Your task to perform on an android device: Show me popular games on the Play Store Image 0: 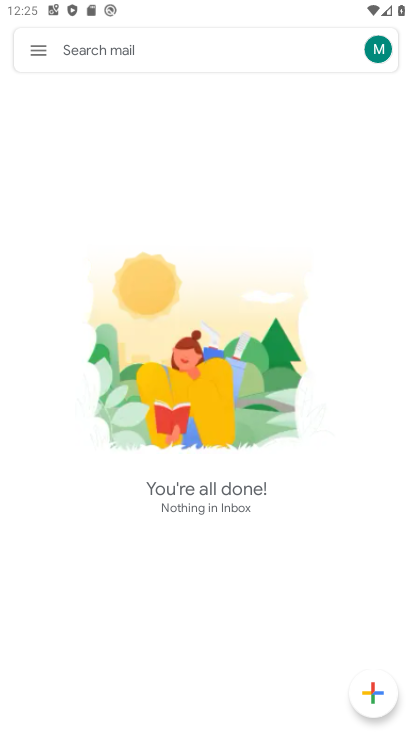
Step 0: press home button
Your task to perform on an android device: Show me popular games on the Play Store Image 1: 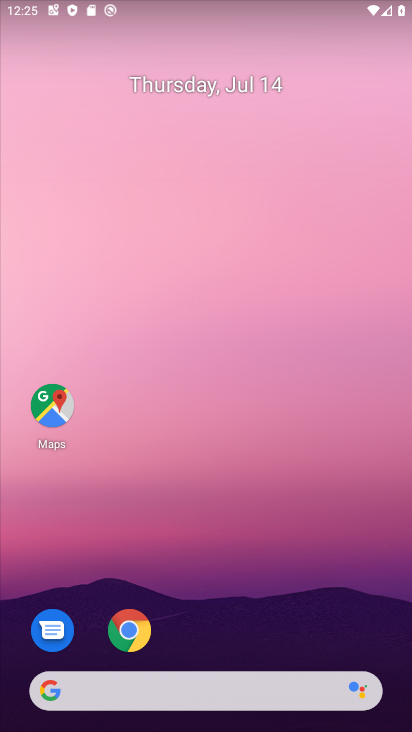
Step 1: drag from (181, 682) to (215, 180)
Your task to perform on an android device: Show me popular games on the Play Store Image 2: 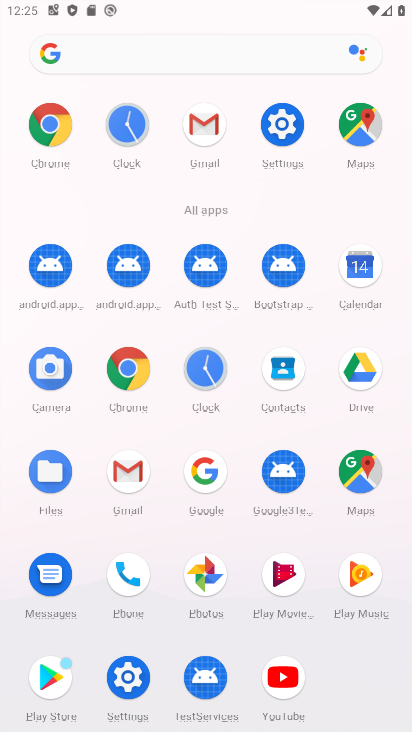
Step 2: click (58, 677)
Your task to perform on an android device: Show me popular games on the Play Store Image 3: 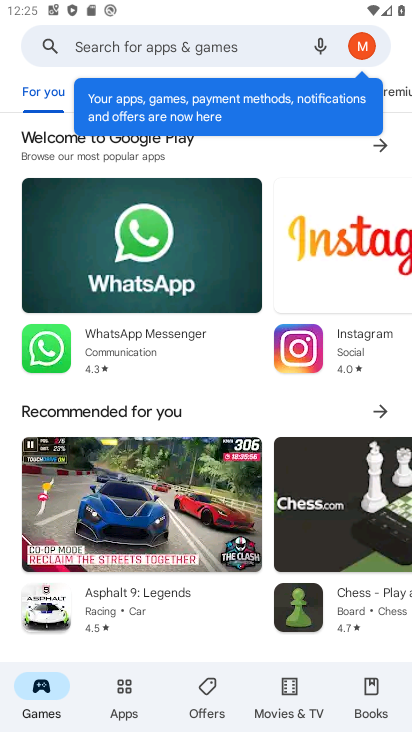
Step 3: click (224, 45)
Your task to perform on an android device: Show me popular games on the Play Store Image 4: 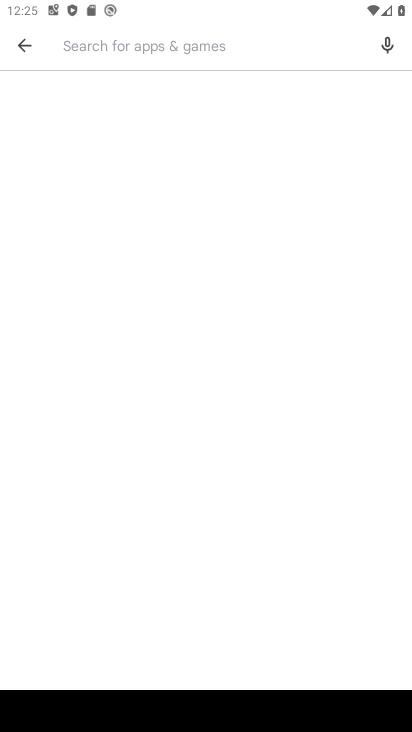
Step 4: type "popular games"
Your task to perform on an android device: Show me popular games on the Play Store Image 5: 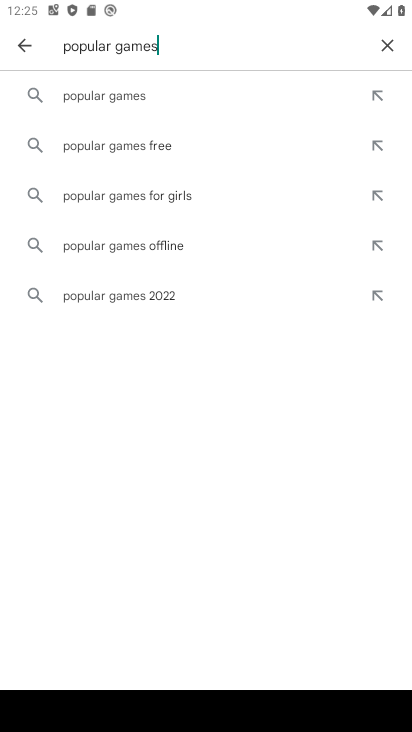
Step 5: click (127, 104)
Your task to perform on an android device: Show me popular games on the Play Store Image 6: 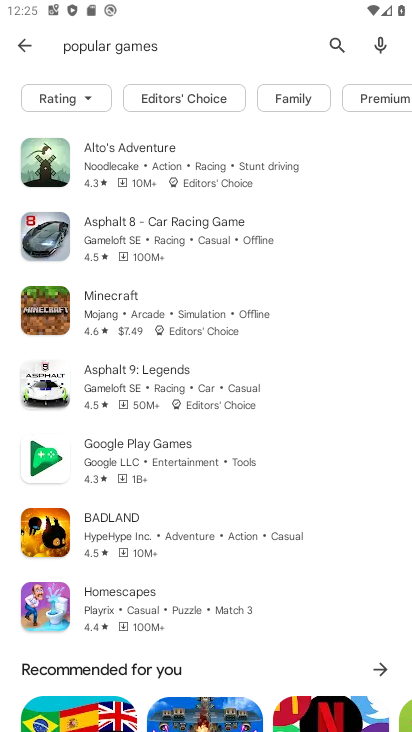
Step 6: task complete